Your task to perform on an android device: empty trash in the gmail app Image 0: 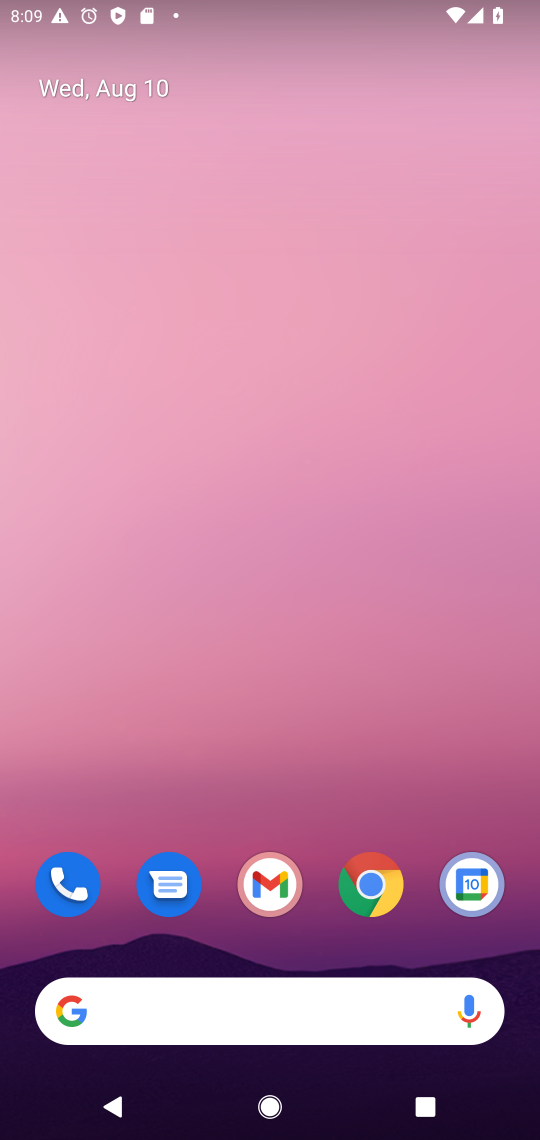
Step 0: click (266, 891)
Your task to perform on an android device: empty trash in the gmail app Image 1: 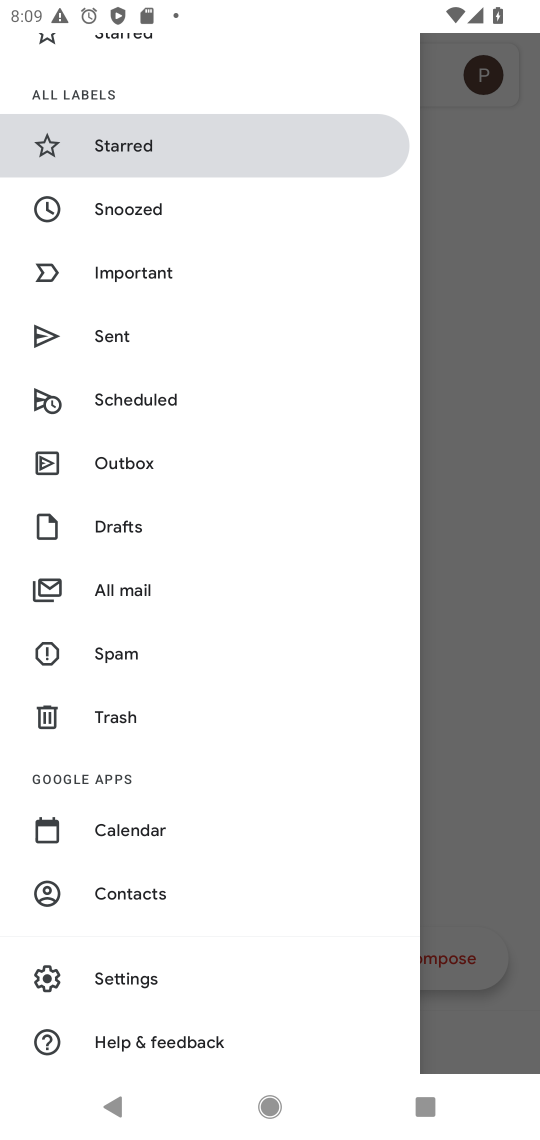
Step 1: click (88, 718)
Your task to perform on an android device: empty trash in the gmail app Image 2: 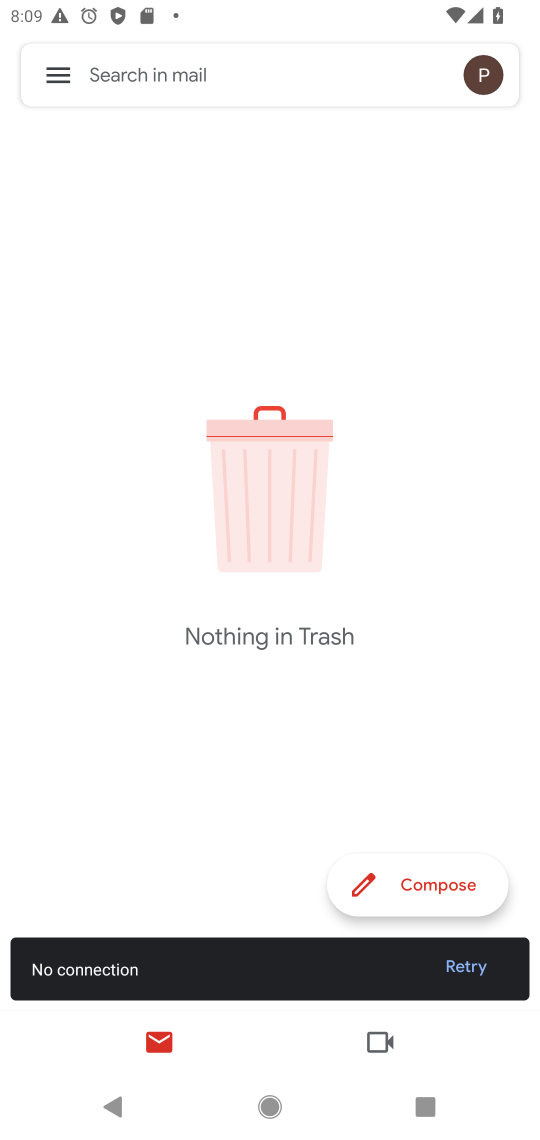
Step 2: task complete